Your task to perform on an android device: Search for pizza restaurants on Maps Image 0: 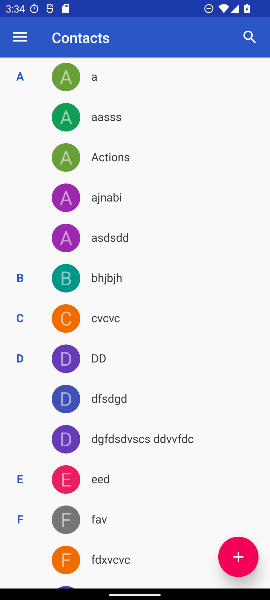
Step 0: press back button
Your task to perform on an android device: Search for pizza restaurants on Maps Image 1: 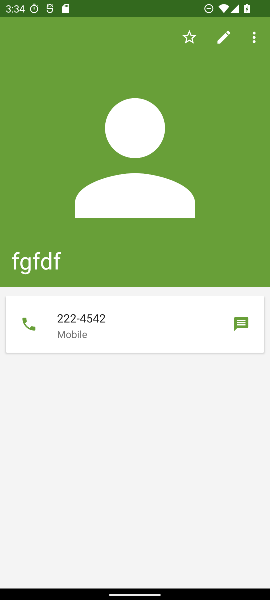
Step 1: press home button
Your task to perform on an android device: Search for pizza restaurants on Maps Image 2: 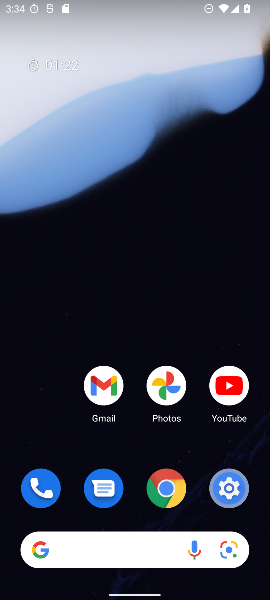
Step 2: drag from (201, 465) to (159, 147)
Your task to perform on an android device: Search for pizza restaurants on Maps Image 3: 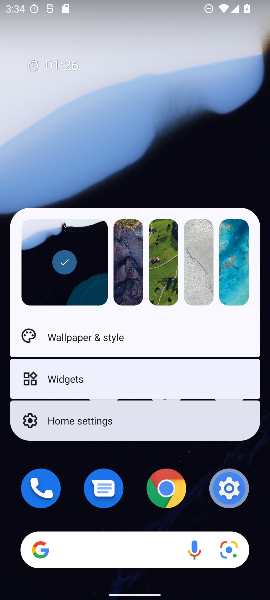
Step 3: click (197, 474)
Your task to perform on an android device: Search for pizza restaurants on Maps Image 4: 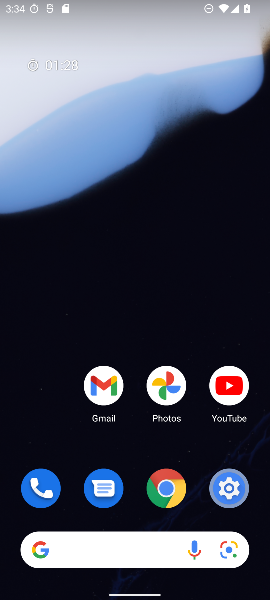
Step 4: drag from (197, 474) to (189, 149)
Your task to perform on an android device: Search for pizza restaurants on Maps Image 5: 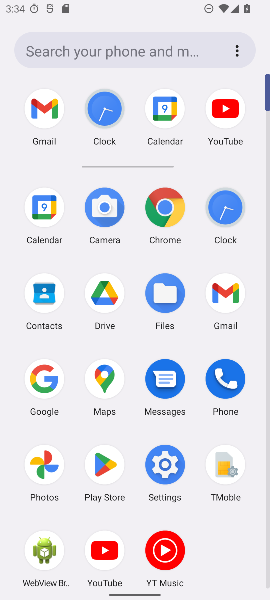
Step 5: click (112, 369)
Your task to perform on an android device: Search for pizza restaurants on Maps Image 6: 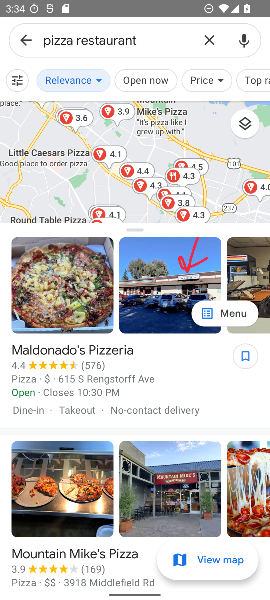
Step 6: task complete